Your task to perform on an android device: Go to sound settings Image 0: 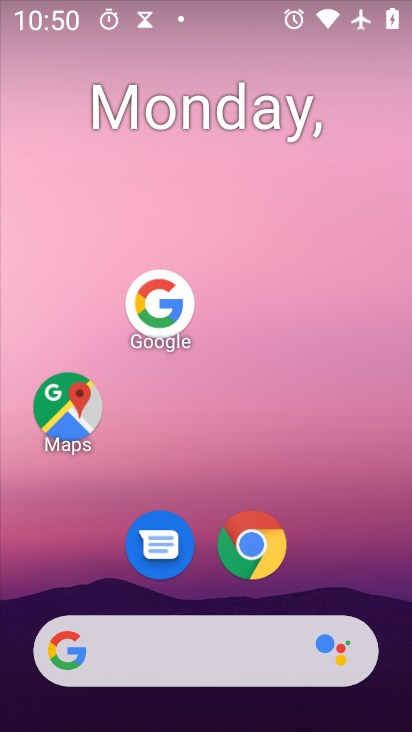
Step 0: press home button
Your task to perform on an android device: Go to sound settings Image 1: 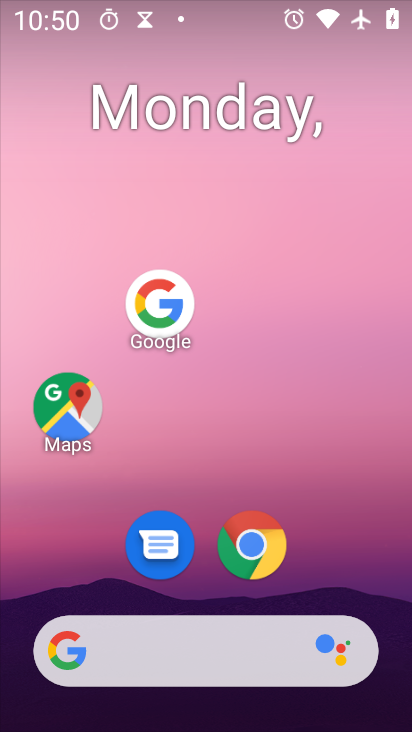
Step 1: drag from (173, 645) to (361, 32)
Your task to perform on an android device: Go to sound settings Image 2: 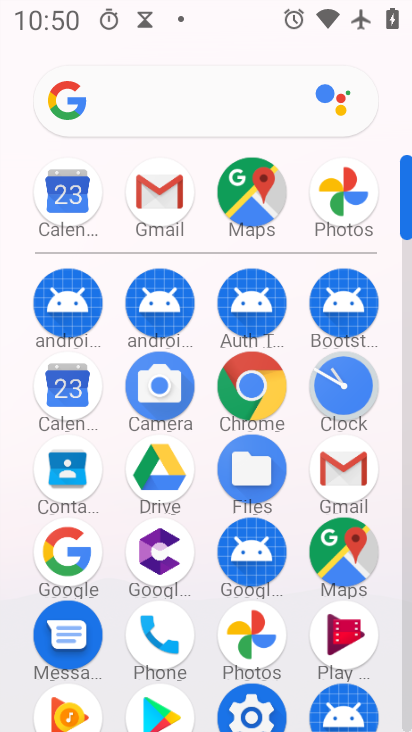
Step 2: drag from (206, 578) to (277, 312)
Your task to perform on an android device: Go to sound settings Image 3: 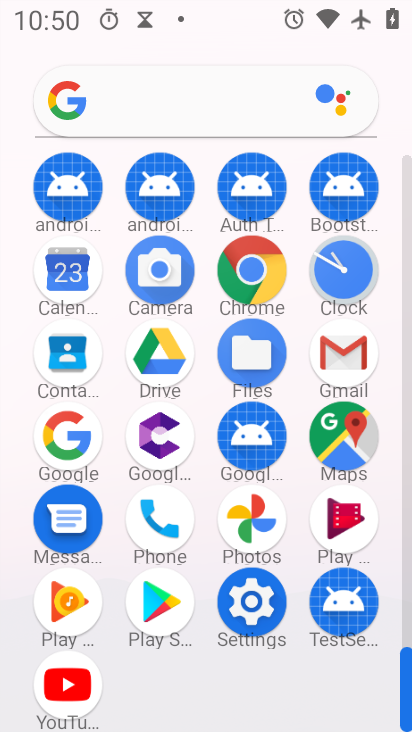
Step 3: click (255, 616)
Your task to perform on an android device: Go to sound settings Image 4: 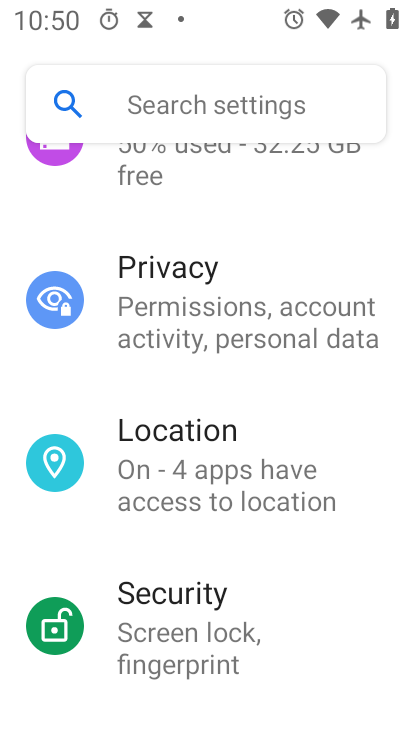
Step 4: drag from (327, 225) to (275, 598)
Your task to perform on an android device: Go to sound settings Image 5: 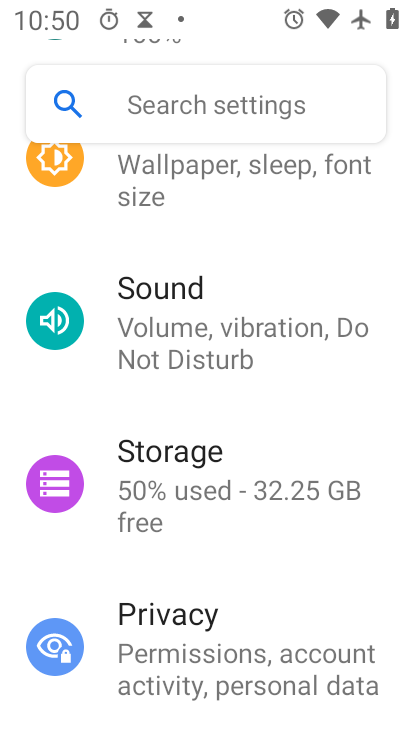
Step 5: click (183, 322)
Your task to perform on an android device: Go to sound settings Image 6: 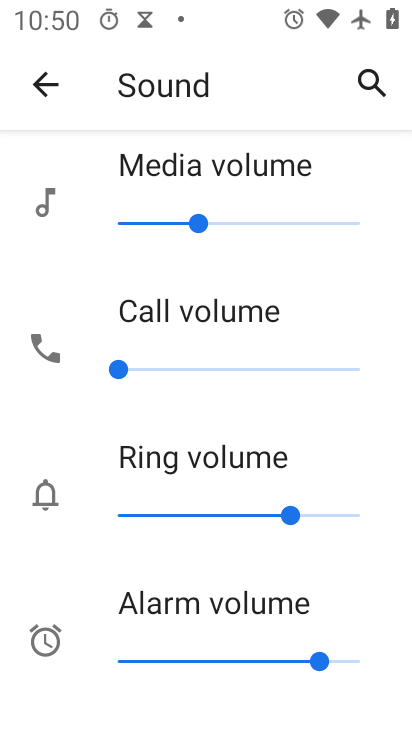
Step 6: task complete